Your task to perform on an android device: Open Chrome and go to settings Image 0: 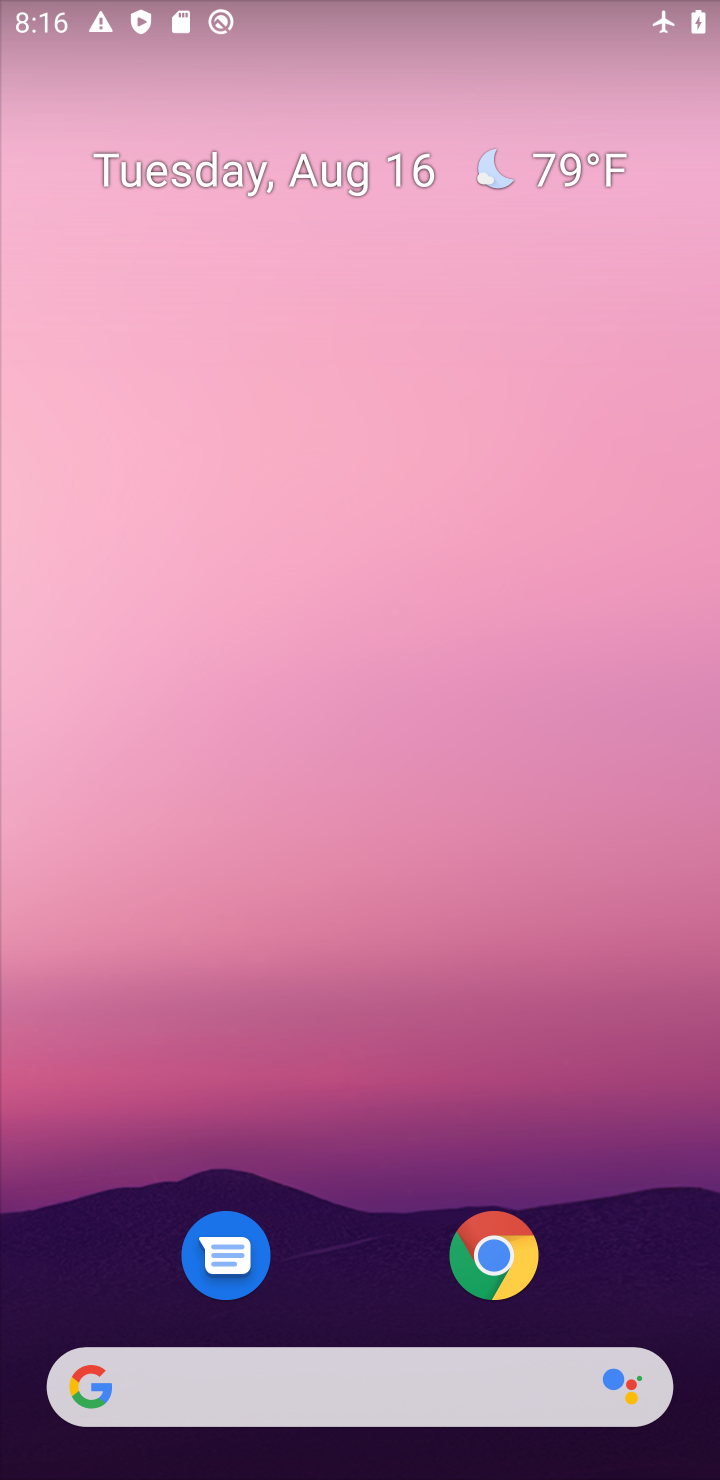
Step 0: click (493, 1235)
Your task to perform on an android device: Open Chrome and go to settings Image 1: 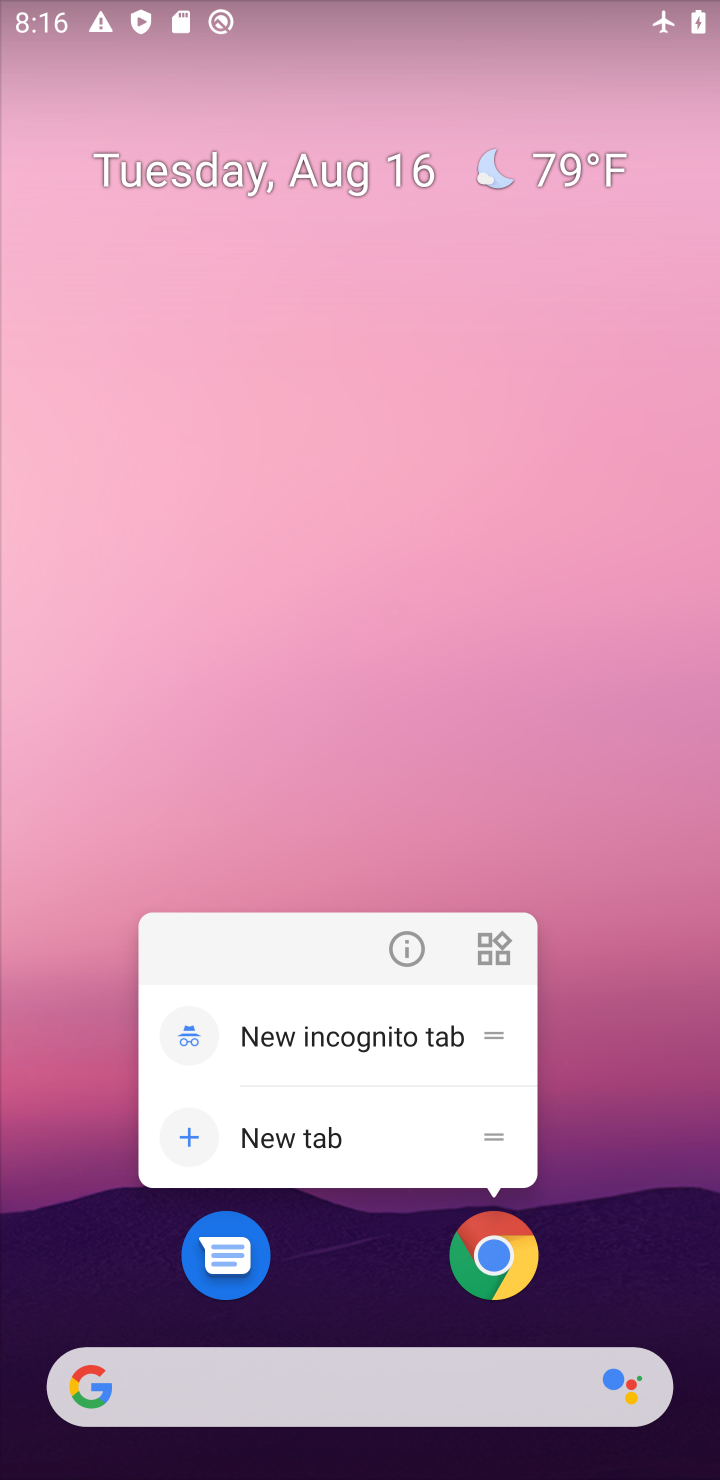
Step 1: click (493, 1235)
Your task to perform on an android device: Open Chrome and go to settings Image 2: 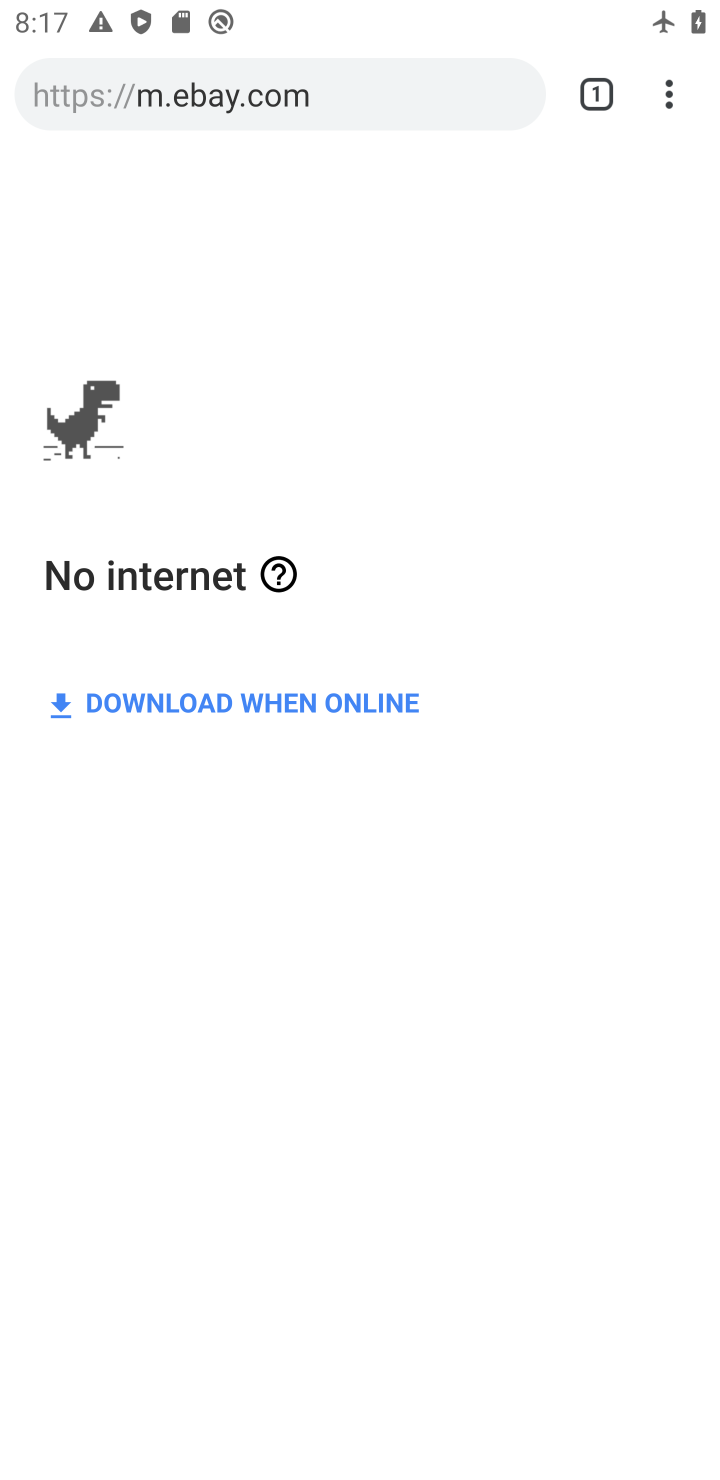
Step 2: task complete